Your task to perform on an android device: Go to Android settings Image 0: 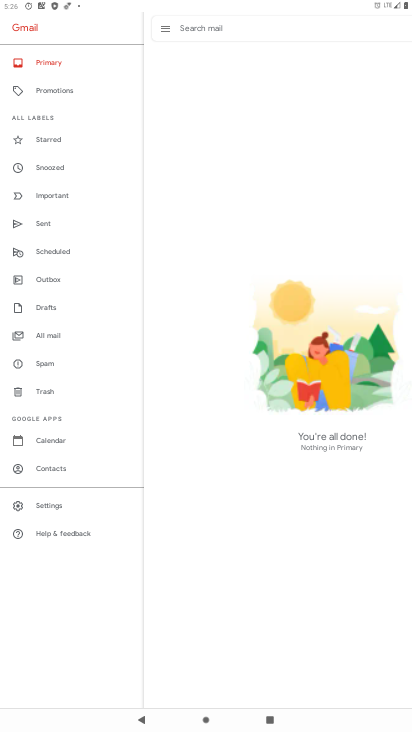
Step 0: press home button
Your task to perform on an android device: Go to Android settings Image 1: 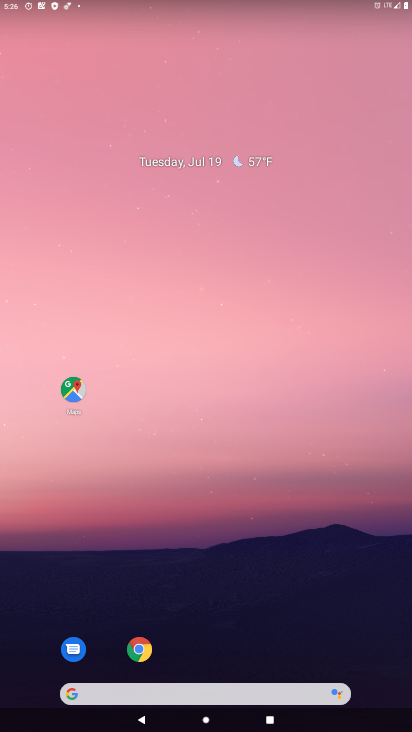
Step 1: drag from (196, 660) to (180, 210)
Your task to perform on an android device: Go to Android settings Image 2: 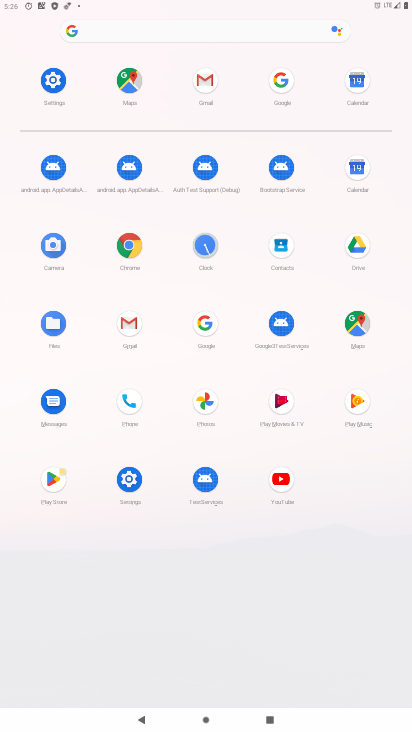
Step 2: click (54, 77)
Your task to perform on an android device: Go to Android settings Image 3: 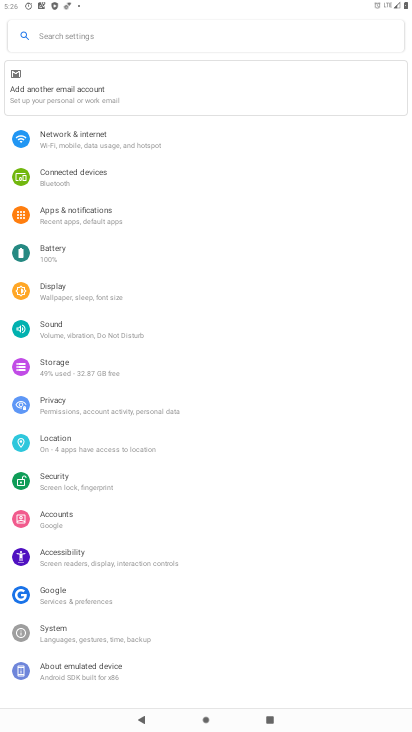
Step 3: click (69, 668)
Your task to perform on an android device: Go to Android settings Image 4: 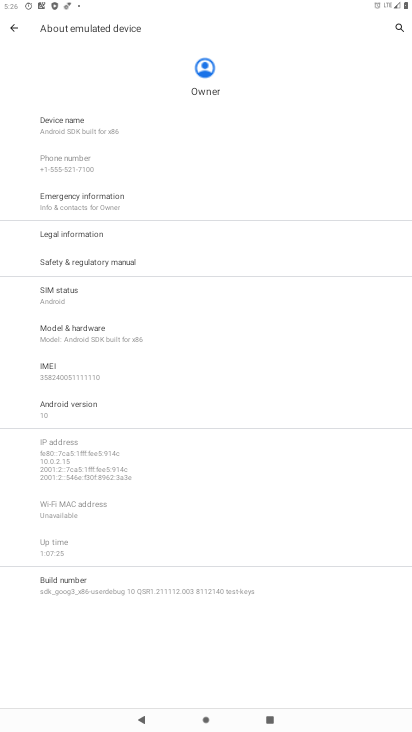
Step 4: click (56, 418)
Your task to perform on an android device: Go to Android settings Image 5: 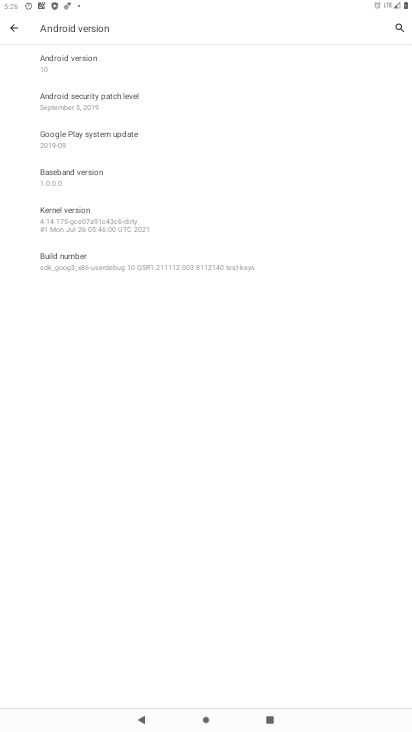
Step 5: task complete